Your task to perform on an android device: change notification settings in the gmail app Image 0: 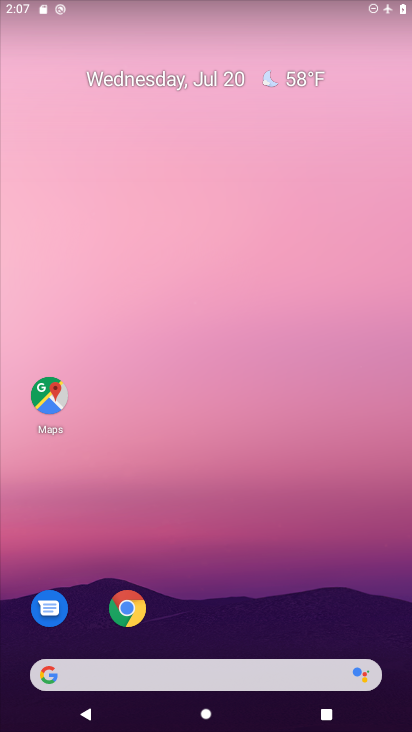
Step 0: drag from (226, 456) to (228, 118)
Your task to perform on an android device: change notification settings in the gmail app Image 1: 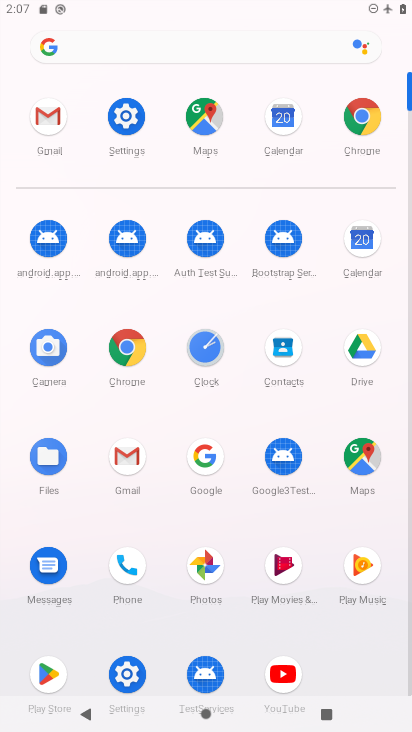
Step 1: click (122, 458)
Your task to perform on an android device: change notification settings in the gmail app Image 2: 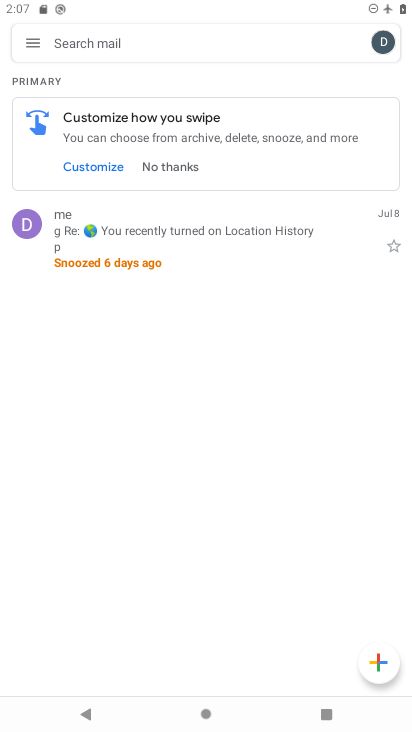
Step 2: click (28, 41)
Your task to perform on an android device: change notification settings in the gmail app Image 3: 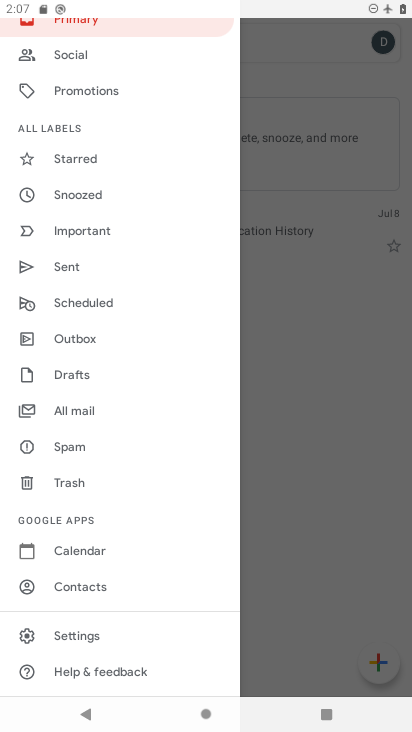
Step 3: click (84, 634)
Your task to perform on an android device: change notification settings in the gmail app Image 4: 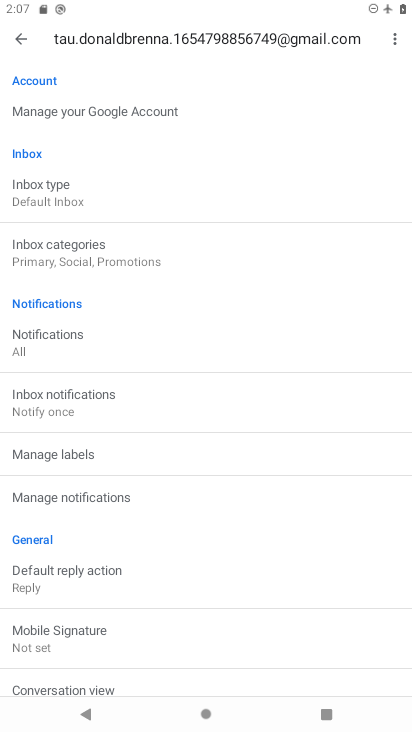
Step 4: click (60, 334)
Your task to perform on an android device: change notification settings in the gmail app Image 5: 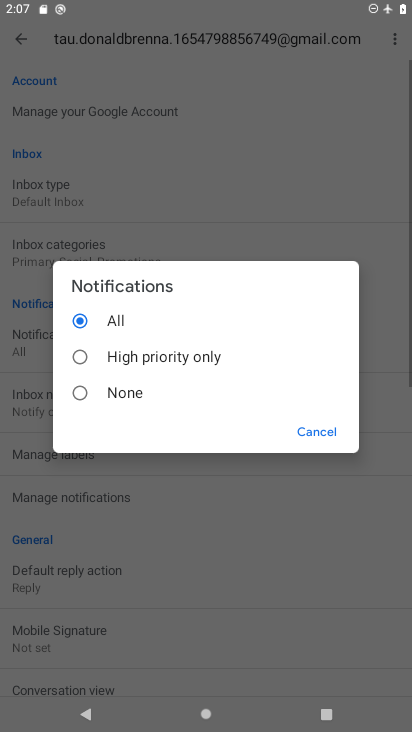
Step 5: click (78, 391)
Your task to perform on an android device: change notification settings in the gmail app Image 6: 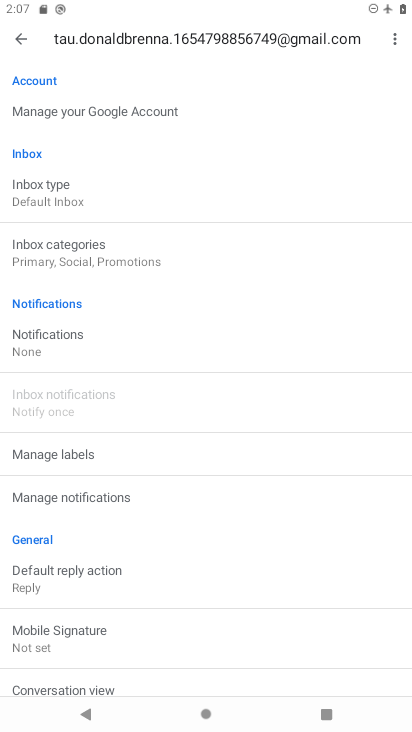
Step 6: task complete